Your task to perform on an android device: Show me recent news Image 0: 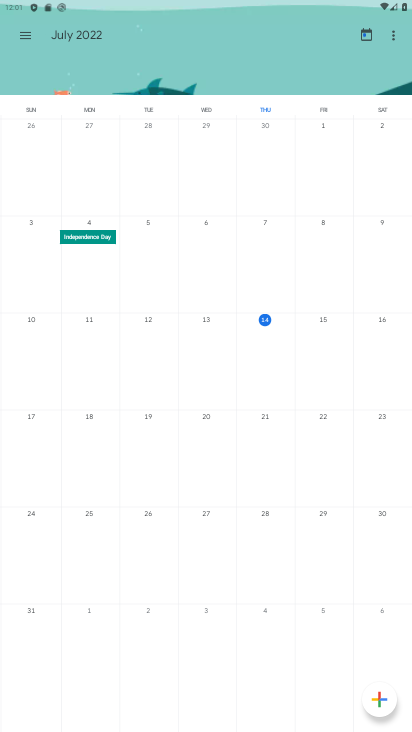
Step 0: press back button
Your task to perform on an android device: Show me recent news Image 1: 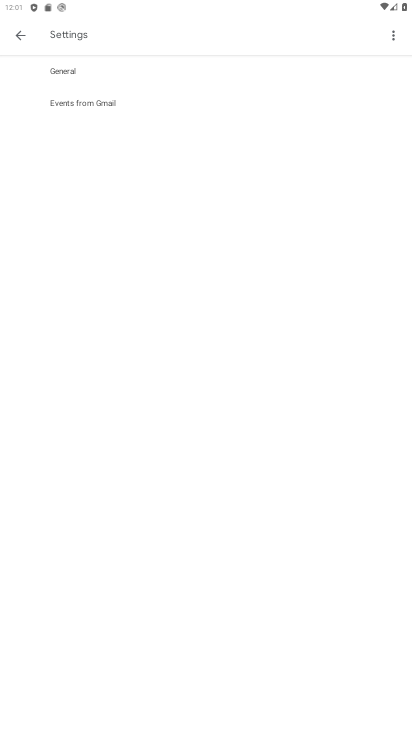
Step 1: press back button
Your task to perform on an android device: Show me recent news Image 2: 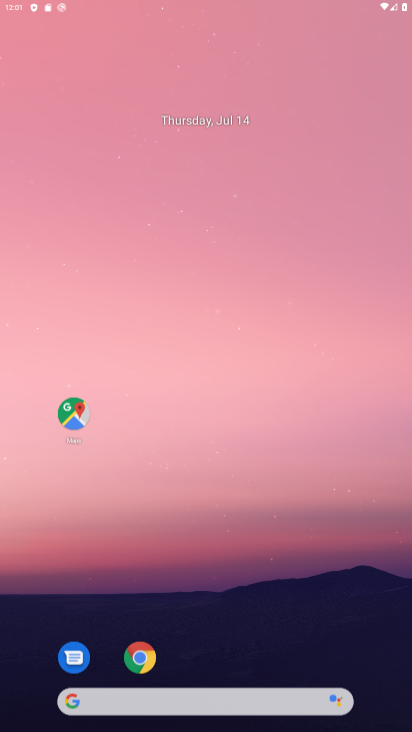
Step 2: press back button
Your task to perform on an android device: Show me recent news Image 3: 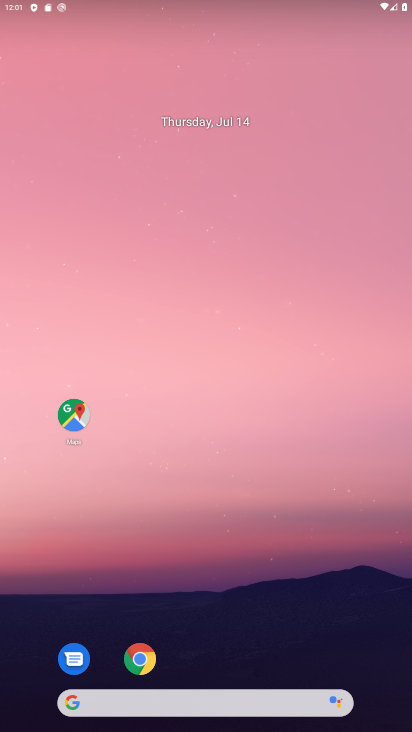
Step 3: press back button
Your task to perform on an android device: Show me recent news Image 4: 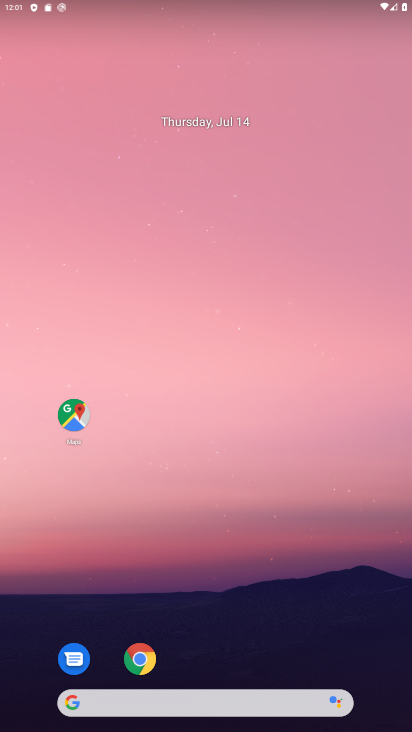
Step 4: click (152, 708)
Your task to perform on an android device: Show me recent news Image 5: 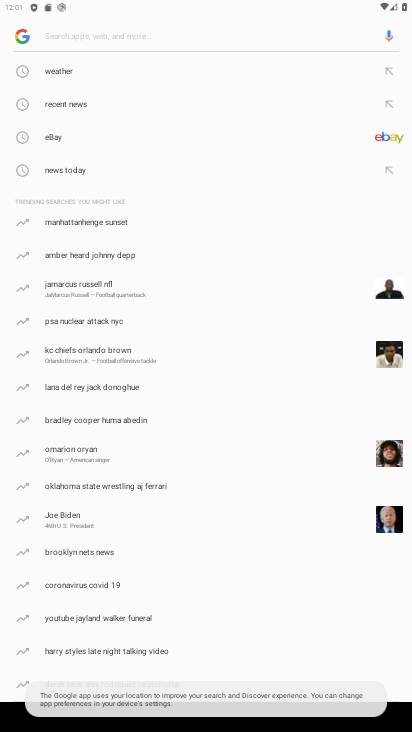
Step 5: click (82, 99)
Your task to perform on an android device: Show me recent news Image 6: 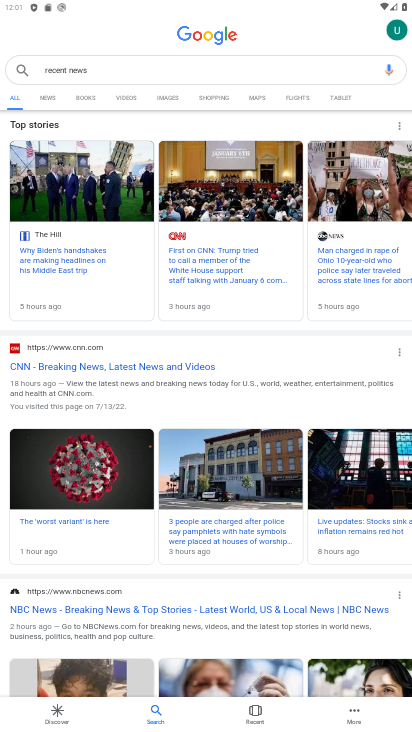
Step 6: task complete